Your task to perform on an android device: Show me popular videos on Youtube Image 0: 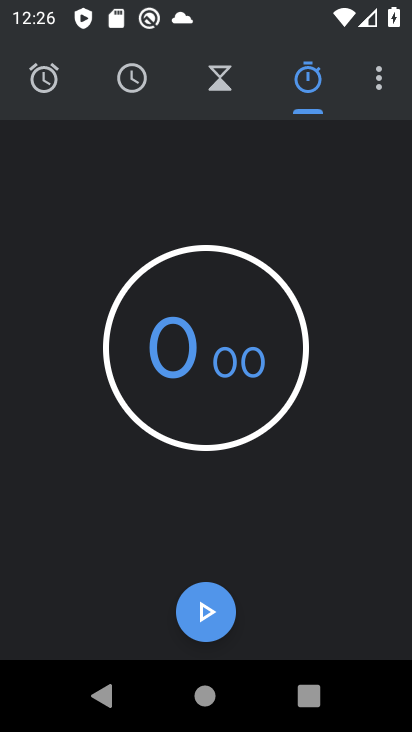
Step 0: press home button
Your task to perform on an android device: Show me popular videos on Youtube Image 1: 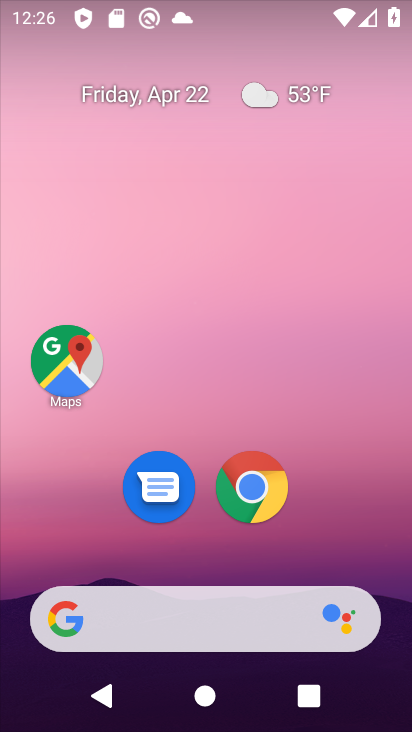
Step 1: drag from (217, 548) to (242, 98)
Your task to perform on an android device: Show me popular videos on Youtube Image 2: 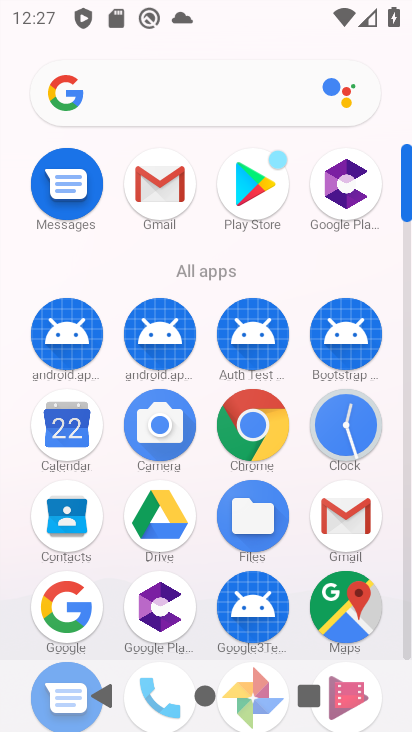
Step 2: drag from (118, 538) to (120, 174)
Your task to perform on an android device: Show me popular videos on Youtube Image 3: 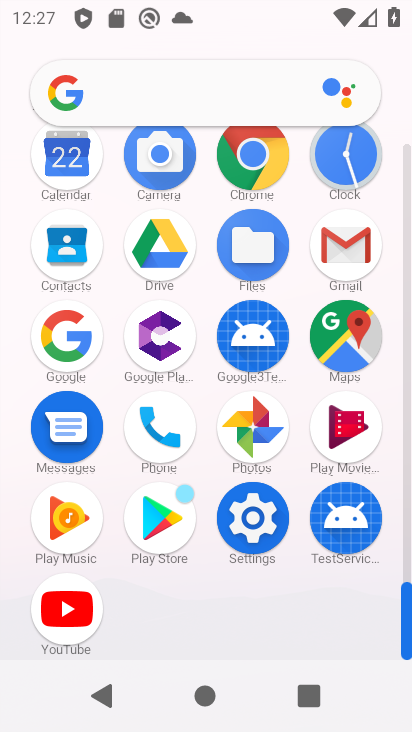
Step 3: click (48, 631)
Your task to perform on an android device: Show me popular videos on Youtube Image 4: 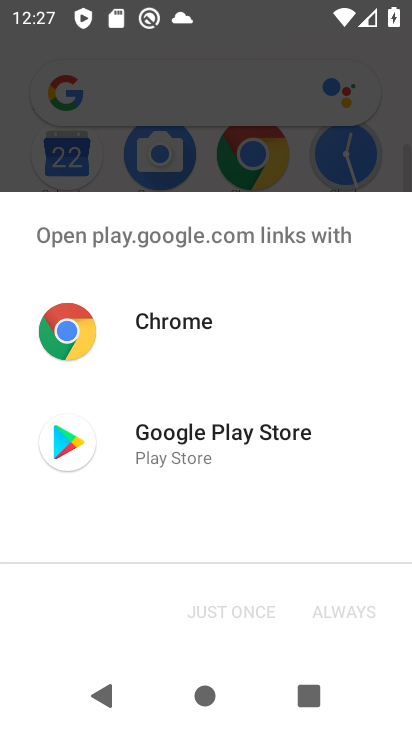
Step 4: click (185, 430)
Your task to perform on an android device: Show me popular videos on Youtube Image 5: 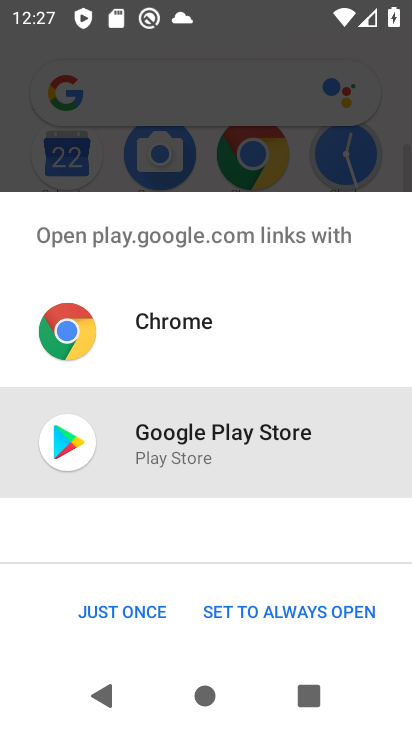
Step 5: click (137, 624)
Your task to perform on an android device: Show me popular videos on Youtube Image 6: 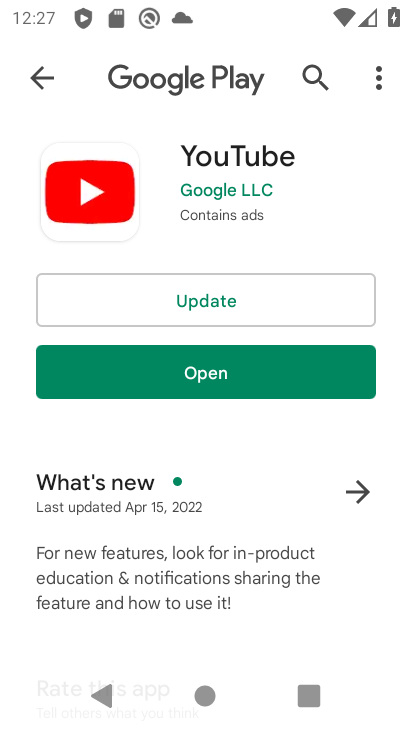
Step 6: click (202, 323)
Your task to perform on an android device: Show me popular videos on Youtube Image 7: 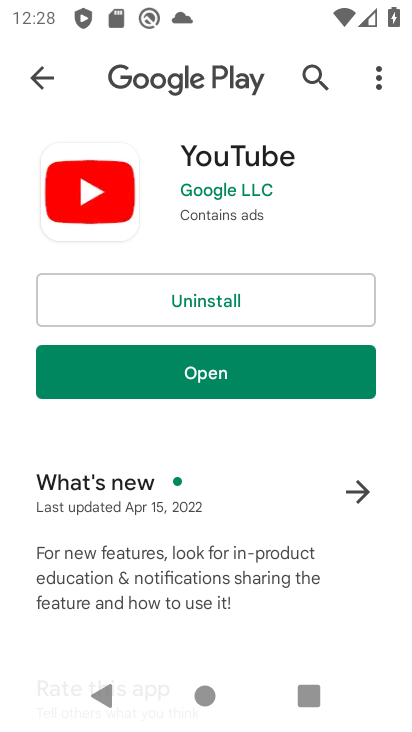
Step 7: click (219, 364)
Your task to perform on an android device: Show me popular videos on Youtube Image 8: 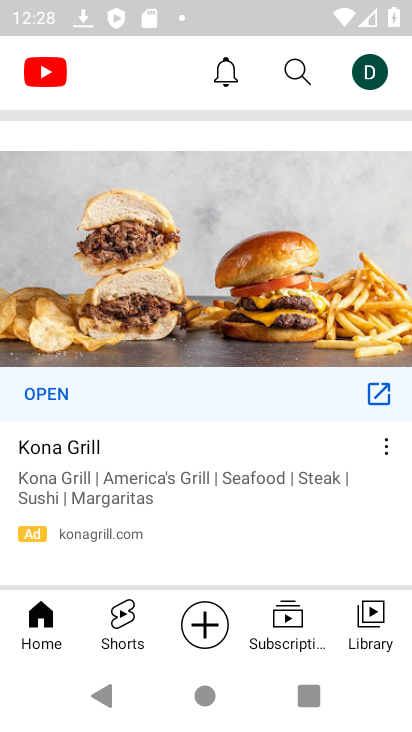
Step 8: drag from (140, 194) to (107, 570)
Your task to perform on an android device: Show me popular videos on Youtube Image 9: 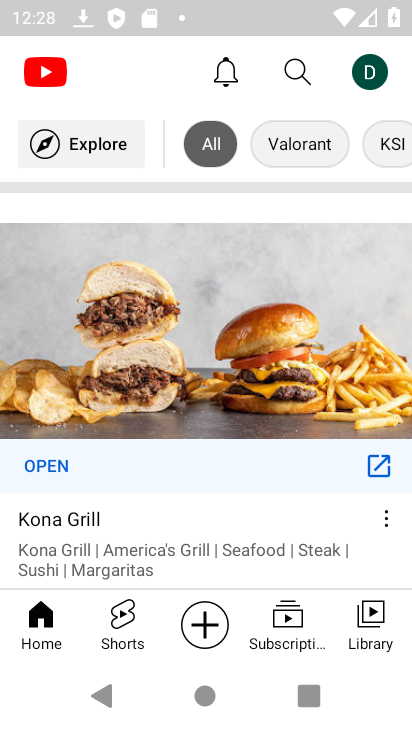
Step 9: click (112, 149)
Your task to perform on an android device: Show me popular videos on Youtube Image 10: 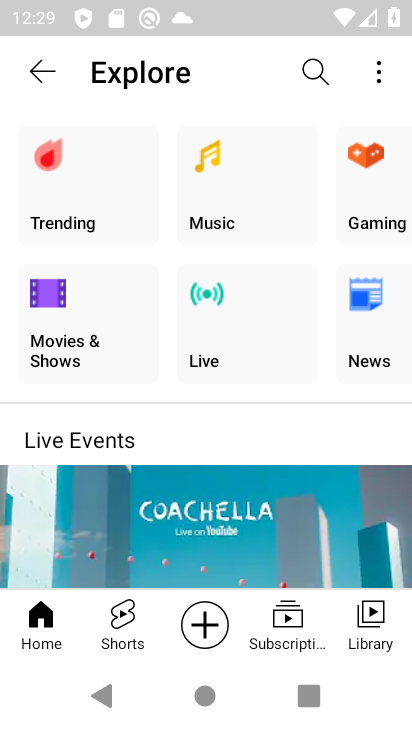
Step 10: click (78, 181)
Your task to perform on an android device: Show me popular videos on Youtube Image 11: 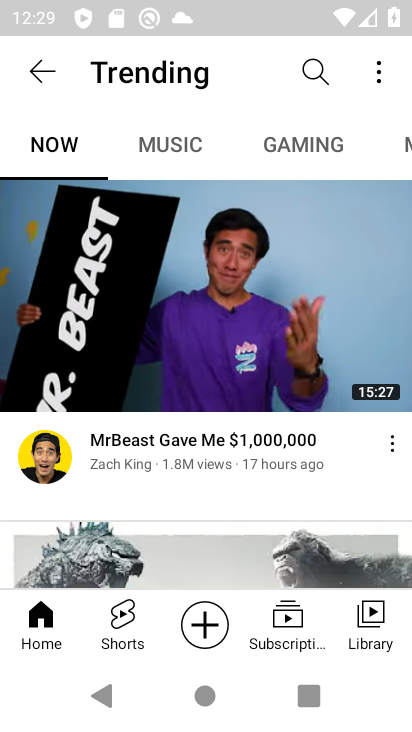
Step 11: task complete